Your task to perform on an android device: install app "Move to iOS" Image 0: 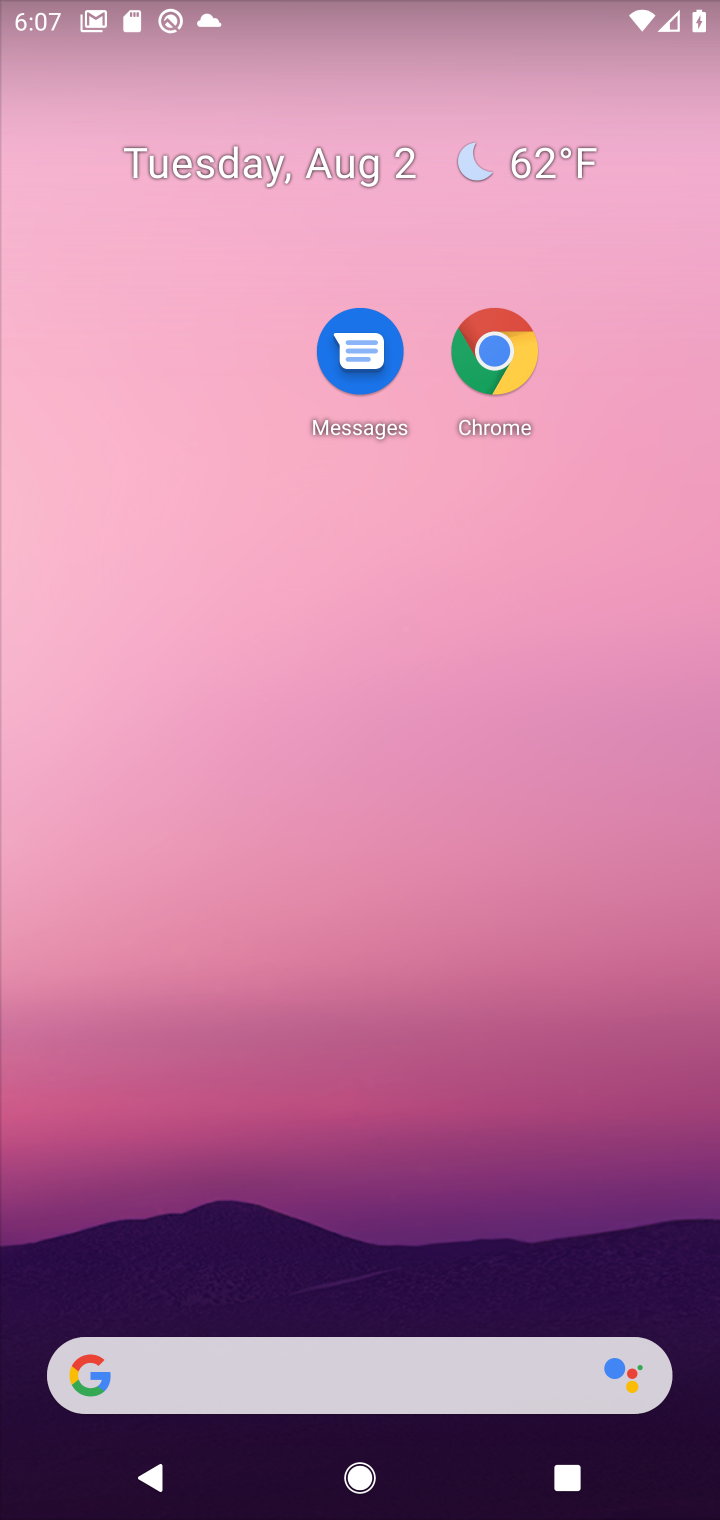
Step 0: drag from (260, 1323) to (278, 335)
Your task to perform on an android device: install app "Move to iOS" Image 1: 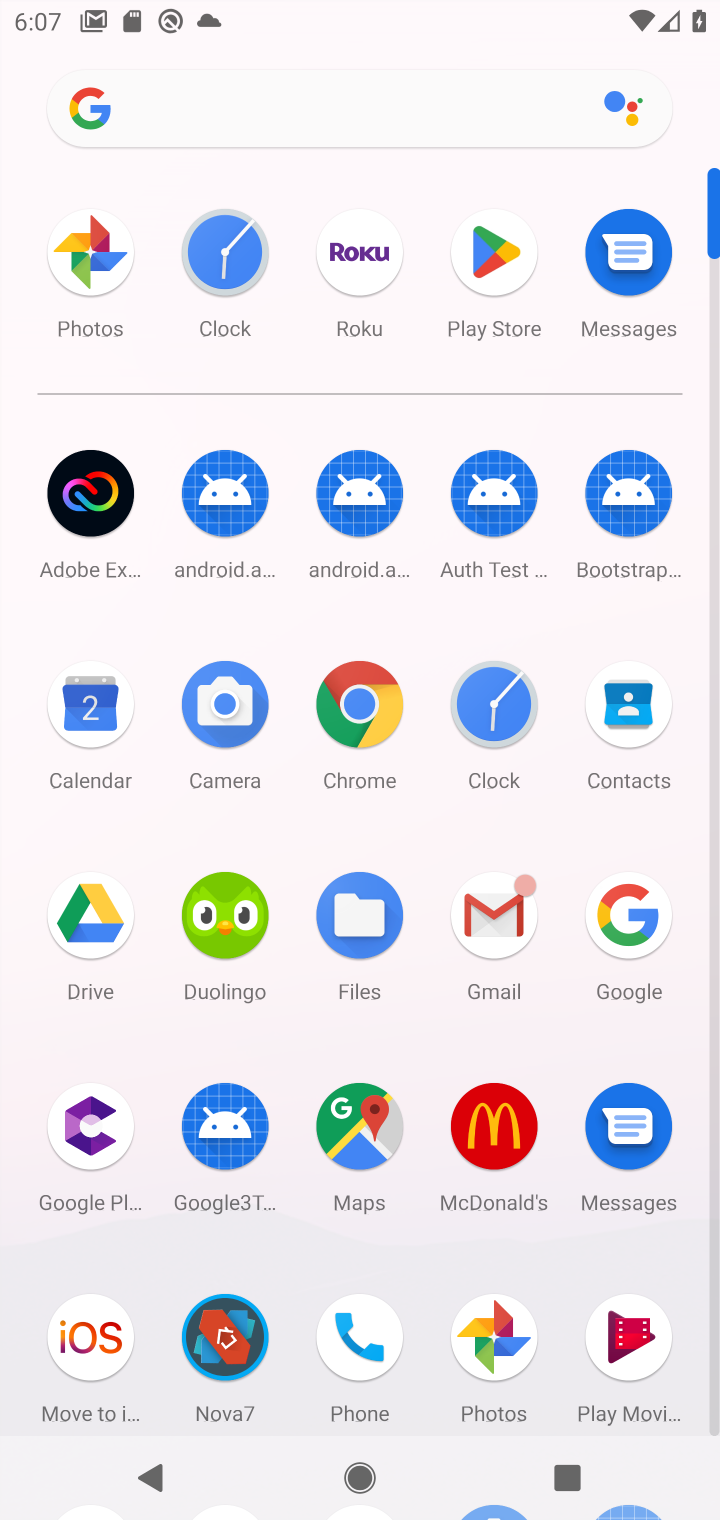
Step 1: click (516, 247)
Your task to perform on an android device: install app "Move to iOS" Image 2: 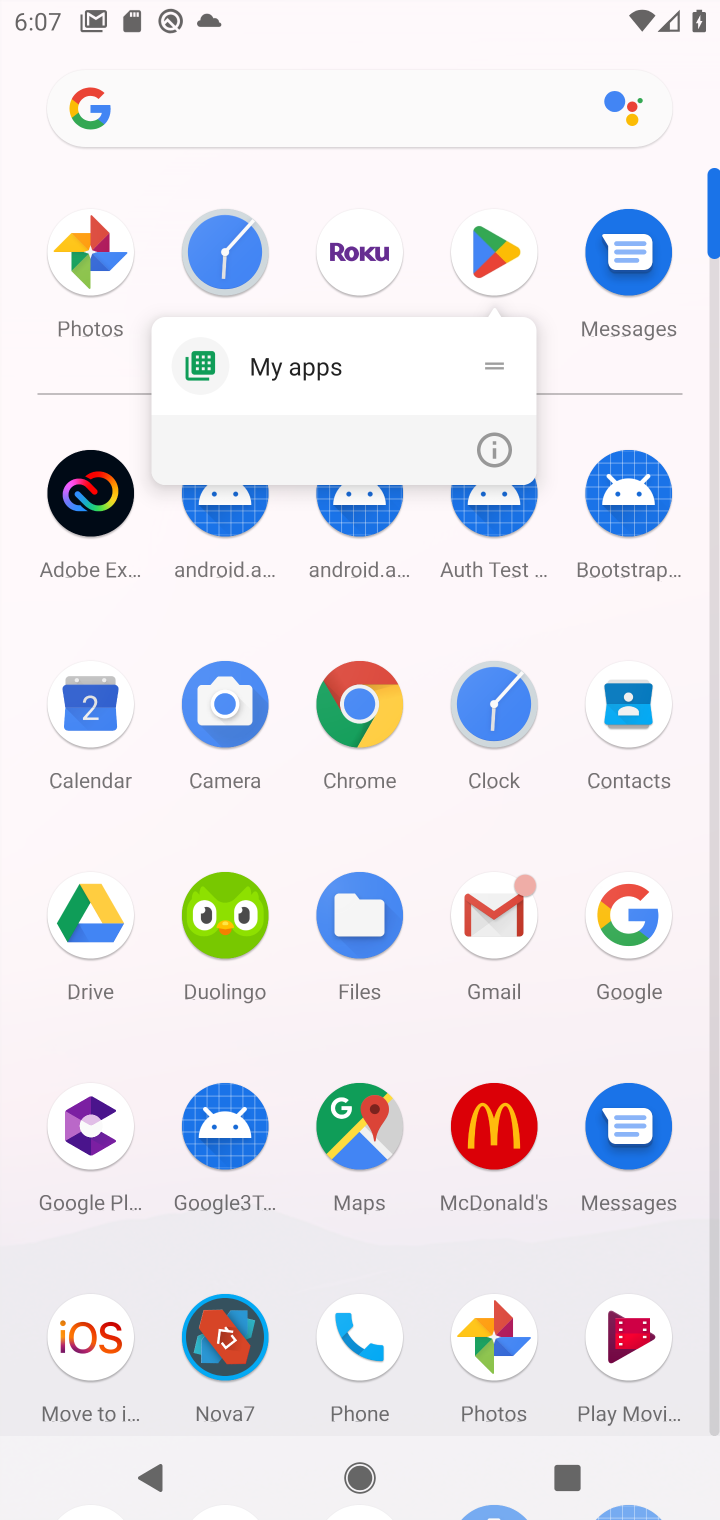
Step 2: click (496, 441)
Your task to perform on an android device: install app "Move to iOS" Image 3: 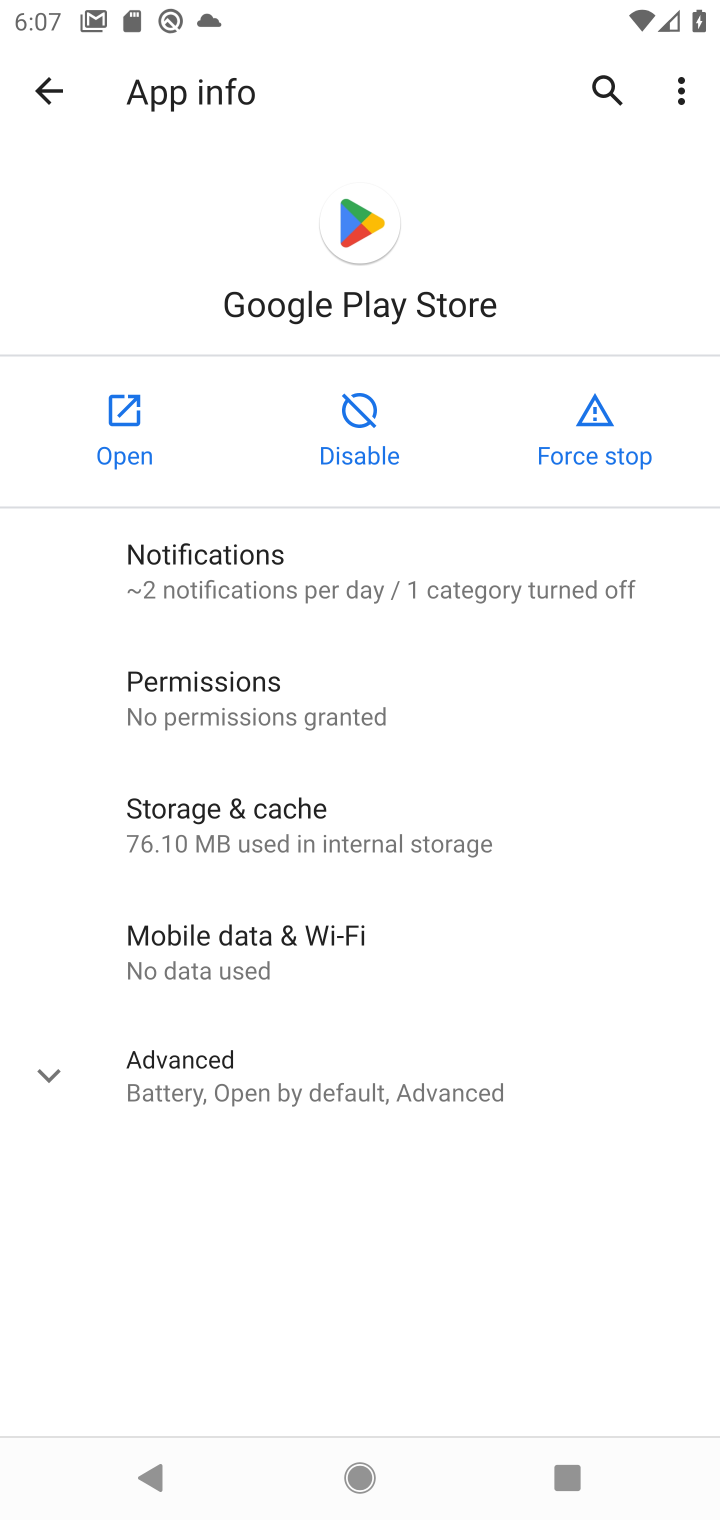
Step 3: click (120, 438)
Your task to perform on an android device: install app "Move to iOS" Image 4: 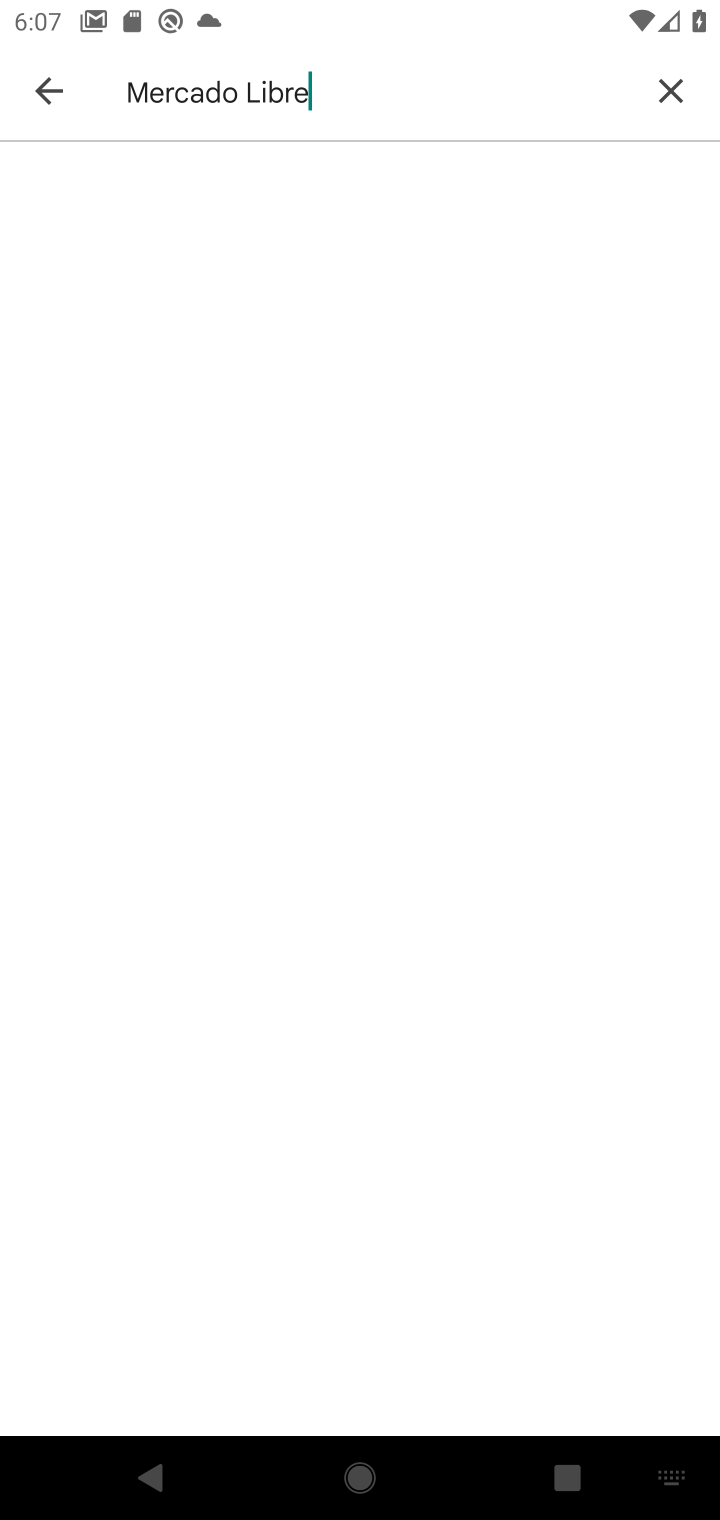
Step 4: click (329, 212)
Your task to perform on an android device: install app "Move to iOS" Image 5: 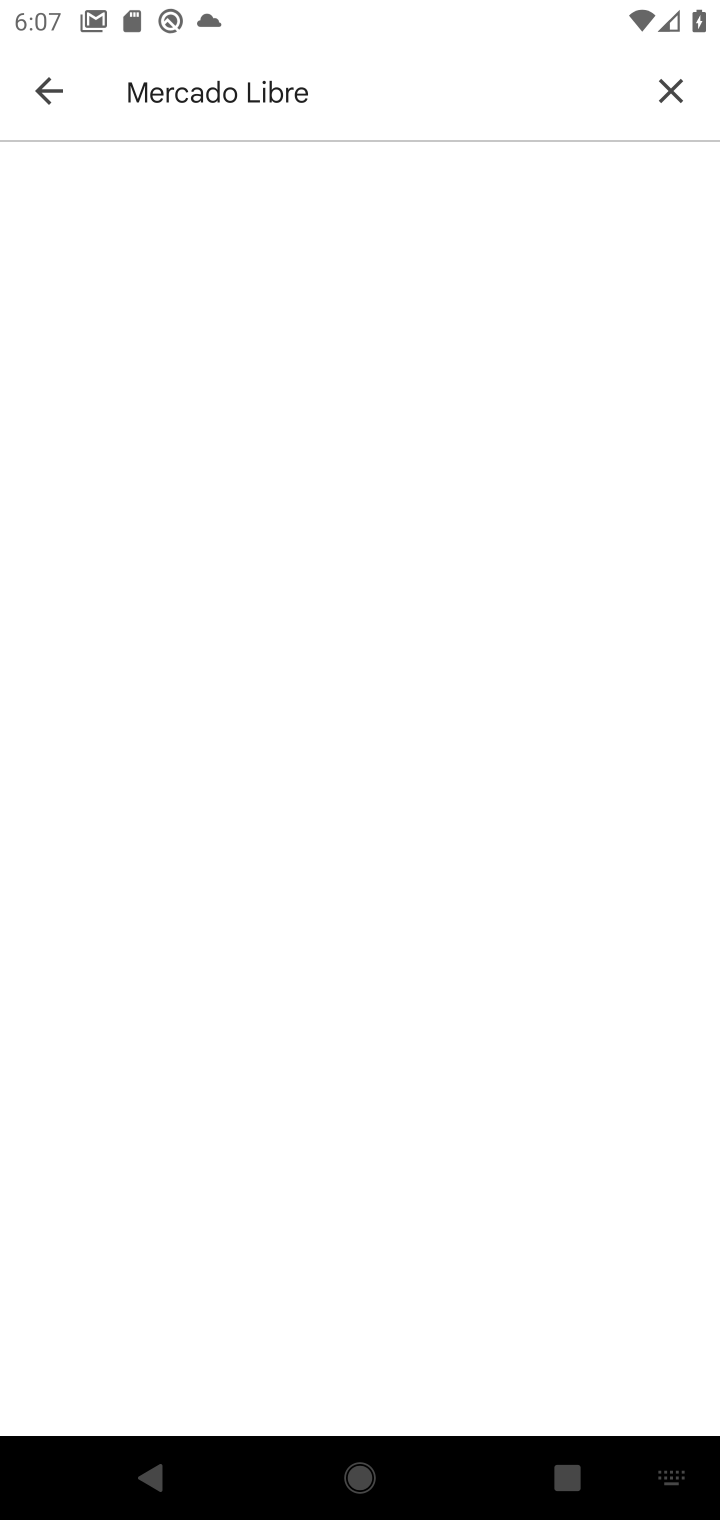
Step 5: click (677, 64)
Your task to perform on an android device: install app "Move to iOS" Image 6: 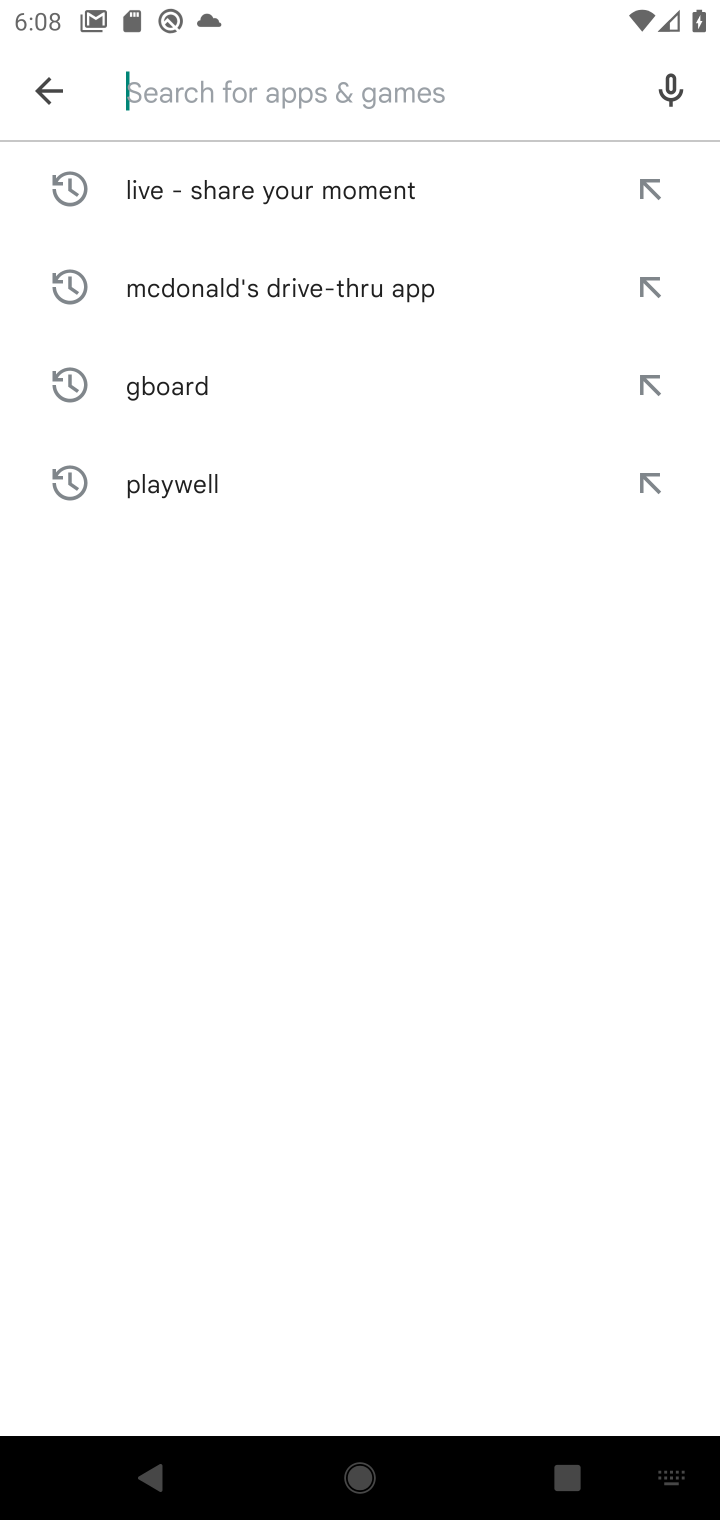
Step 6: drag from (407, 995) to (378, 523)
Your task to perform on an android device: install app "Move to iOS" Image 7: 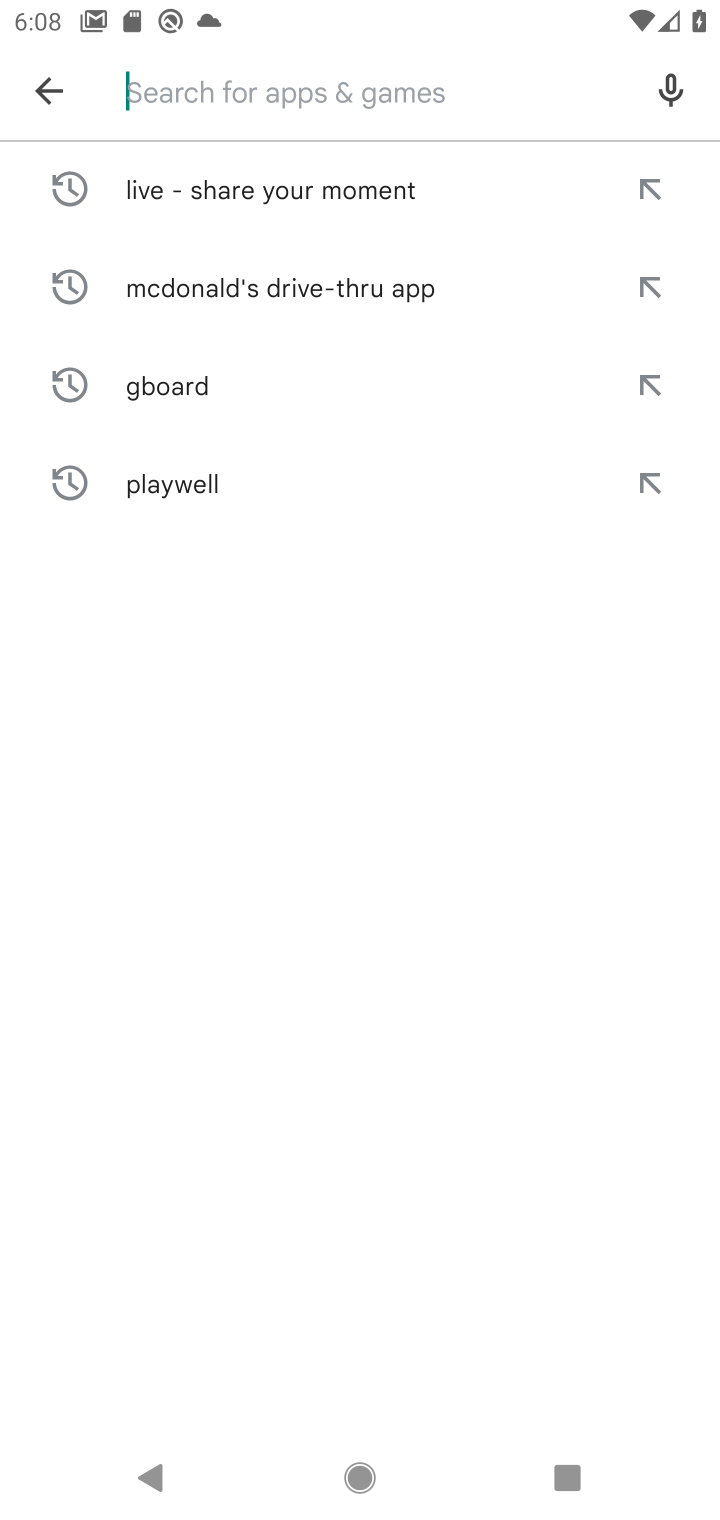
Step 7: type "Move to iOS"
Your task to perform on an android device: install app "Move to iOS" Image 8: 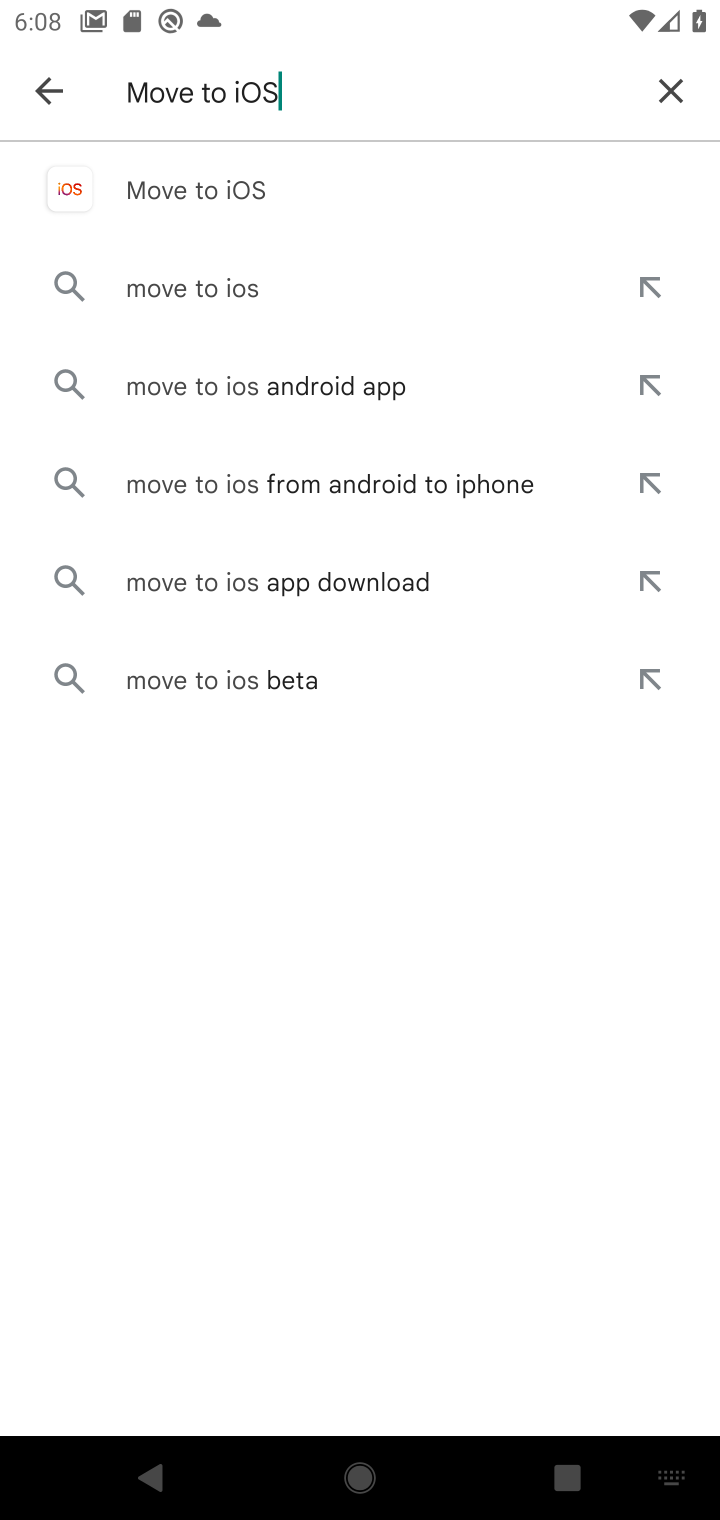
Step 8: click (132, 199)
Your task to perform on an android device: install app "Move to iOS" Image 9: 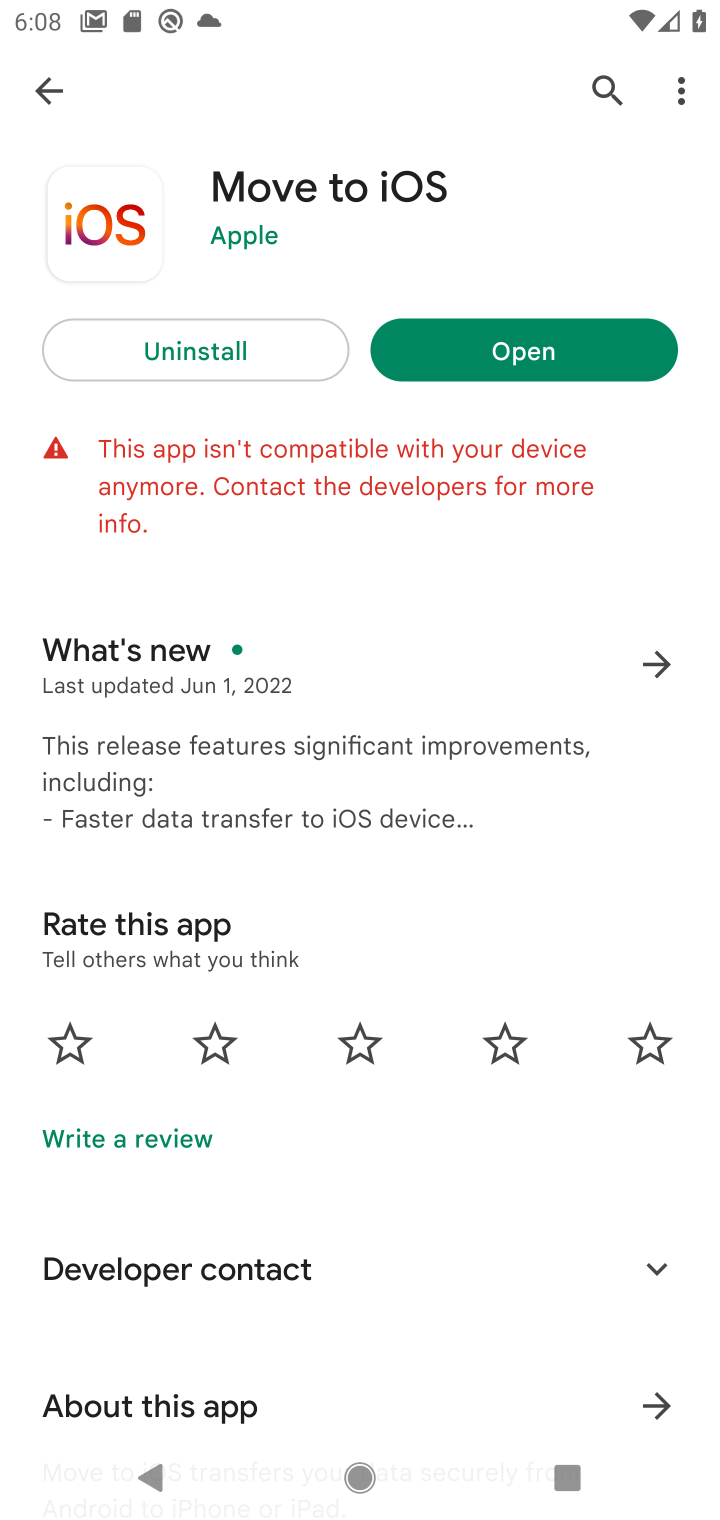
Step 9: task complete